Your task to perform on an android device: Show me popular videos on Youtube Image 0: 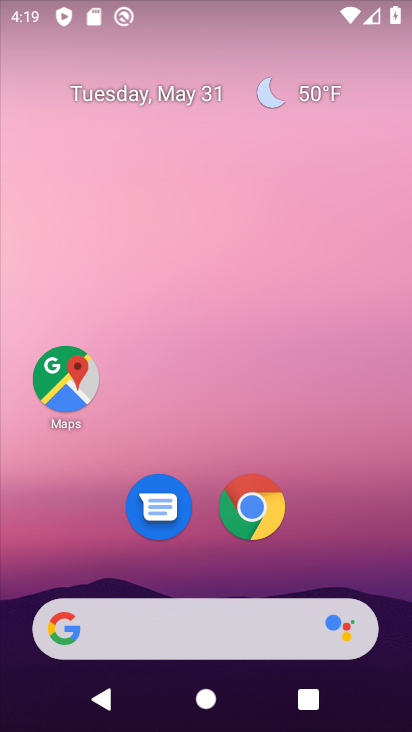
Step 0: drag from (223, 467) to (203, 25)
Your task to perform on an android device: Show me popular videos on Youtube Image 1: 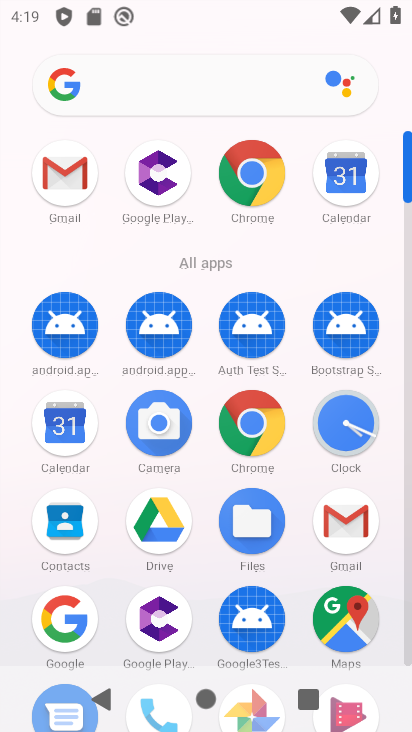
Step 1: drag from (218, 360) to (222, 89)
Your task to perform on an android device: Show me popular videos on Youtube Image 2: 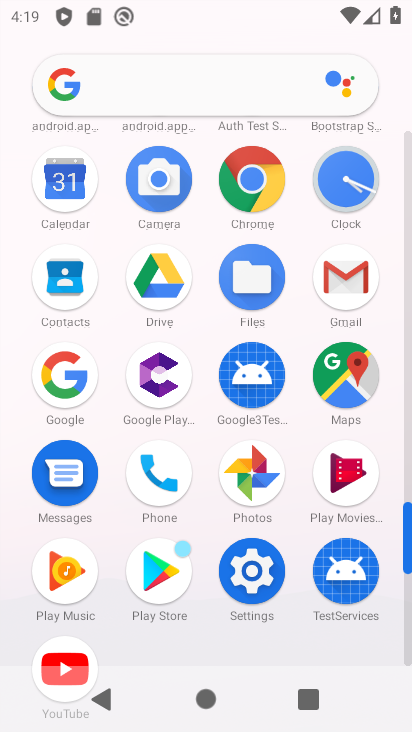
Step 2: drag from (85, 609) to (54, 481)
Your task to perform on an android device: Show me popular videos on Youtube Image 3: 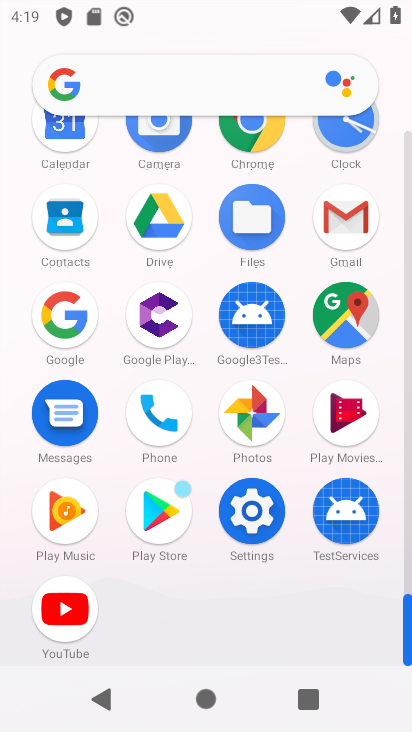
Step 3: click (74, 589)
Your task to perform on an android device: Show me popular videos on Youtube Image 4: 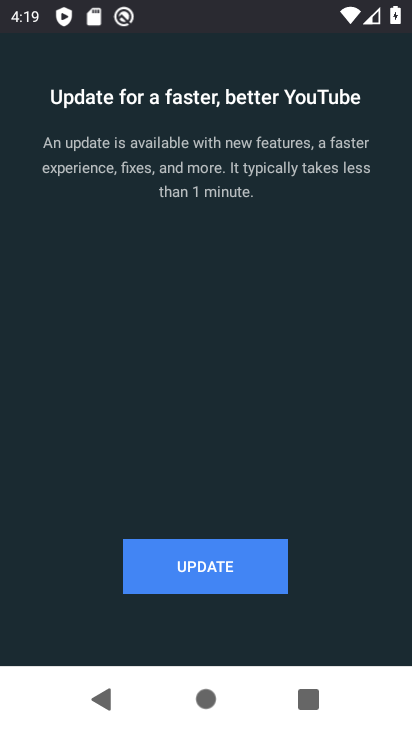
Step 4: click (213, 568)
Your task to perform on an android device: Show me popular videos on Youtube Image 5: 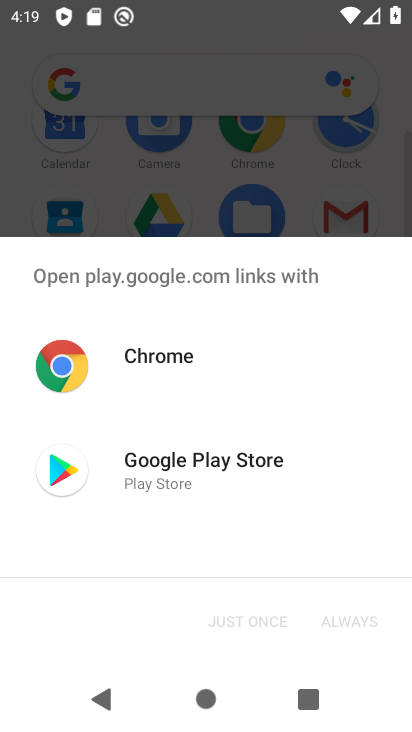
Step 5: click (174, 462)
Your task to perform on an android device: Show me popular videos on Youtube Image 6: 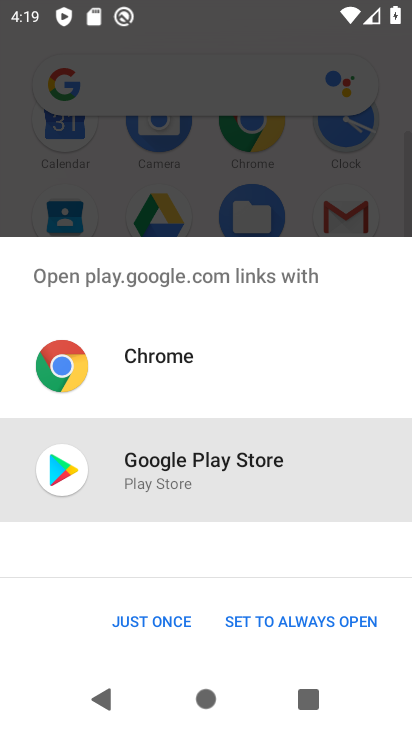
Step 6: click (189, 612)
Your task to perform on an android device: Show me popular videos on Youtube Image 7: 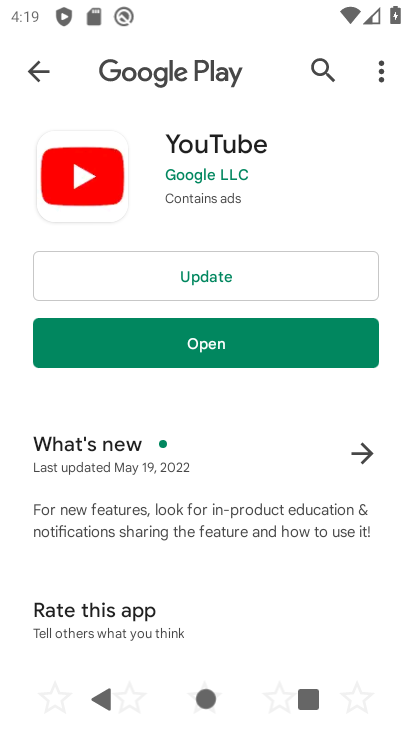
Step 7: click (217, 268)
Your task to perform on an android device: Show me popular videos on Youtube Image 8: 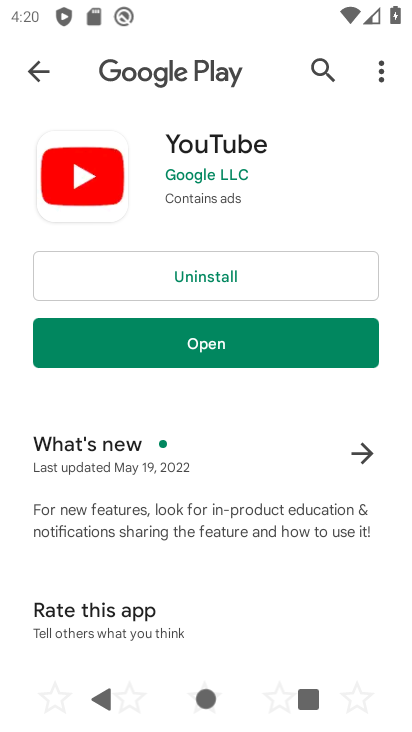
Step 8: click (332, 354)
Your task to perform on an android device: Show me popular videos on Youtube Image 9: 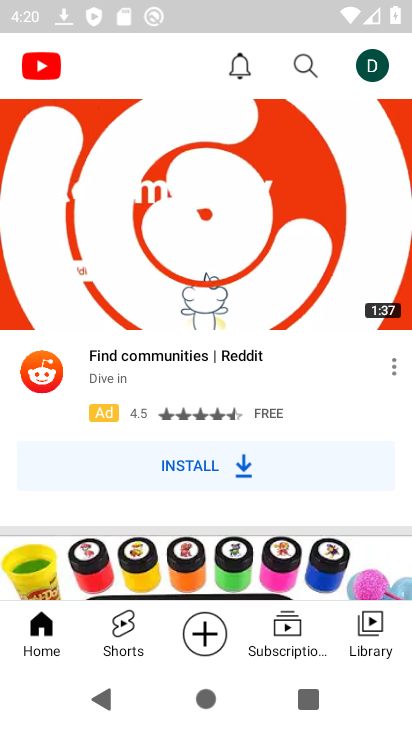
Step 9: click (296, 57)
Your task to perform on an android device: Show me popular videos on Youtube Image 10: 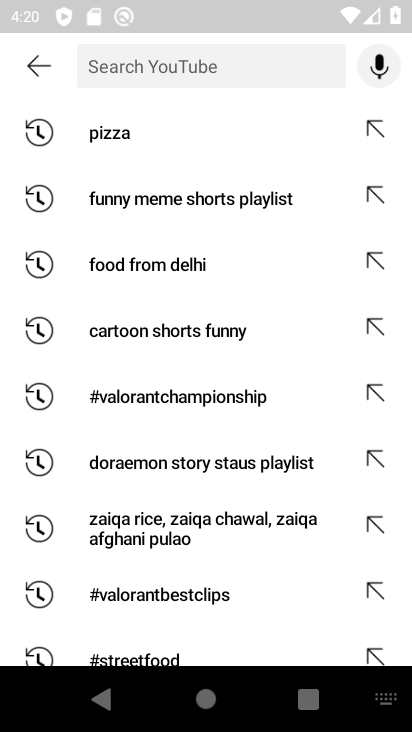
Step 10: type "popular videos"
Your task to perform on an android device: Show me popular videos on Youtube Image 11: 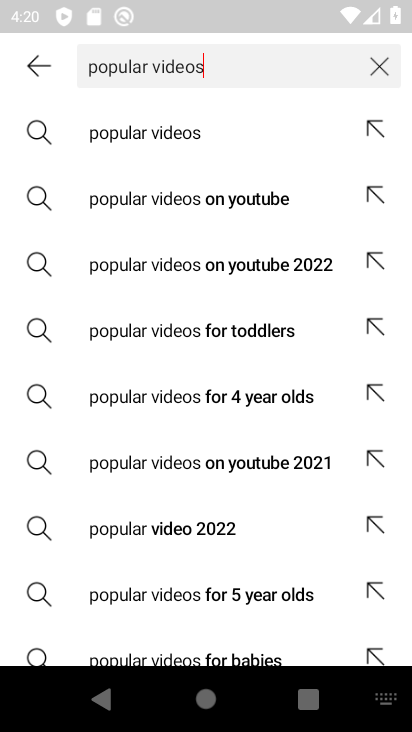
Step 11: click (275, 195)
Your task to perform on an android device: Show me popular videos on Youtube Image 12: 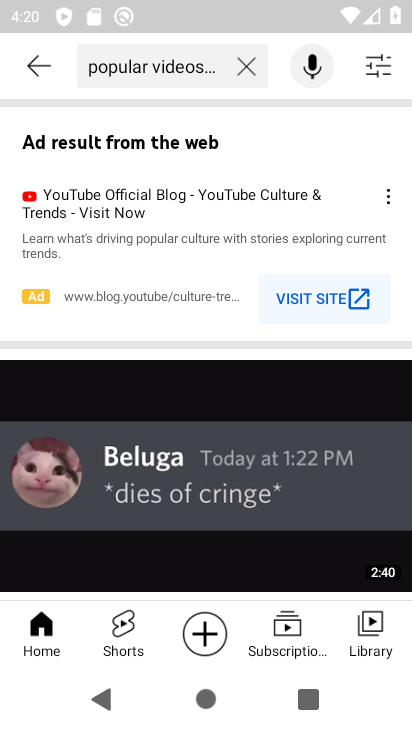
Step 12: task complete